Your task to perform on an android device: Open Google Maps and go to "Timeline" Image 0: 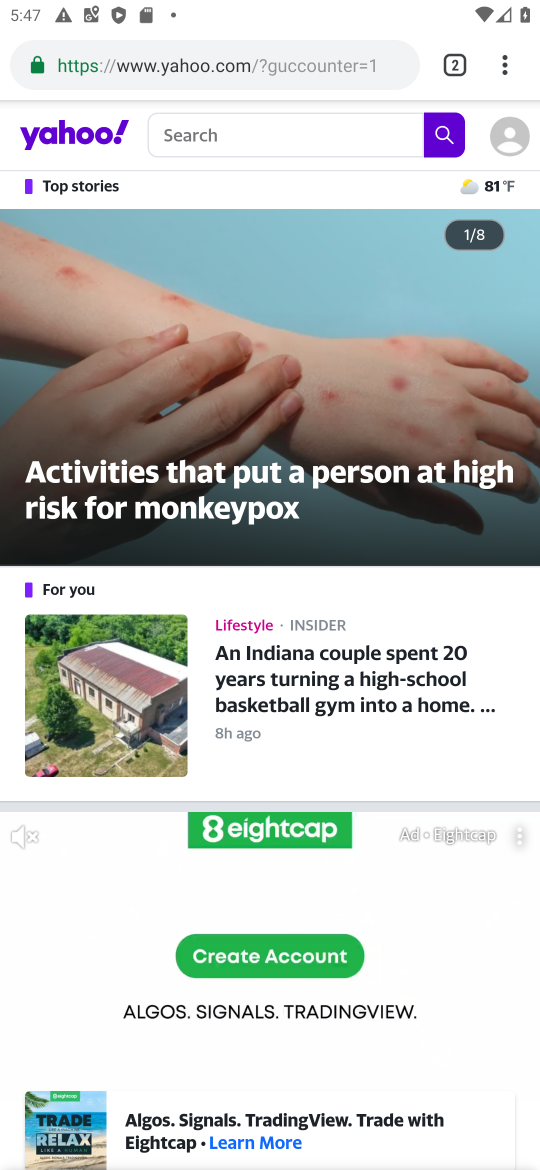
Step 0: press home button
Your task to perform on an android device: Open Google Maps and go to "Timeline" Image 1: 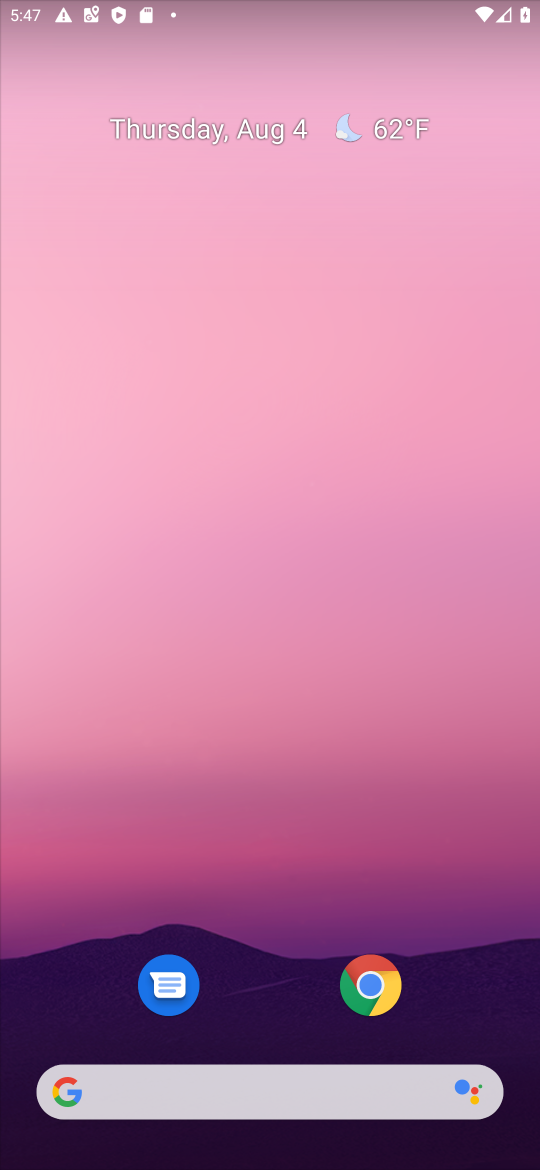
Step 1: drag from (305, 1080) to (53, 270)
Your task to perform on an android device: Open Google Maps and go to "Timeline" Image 2: 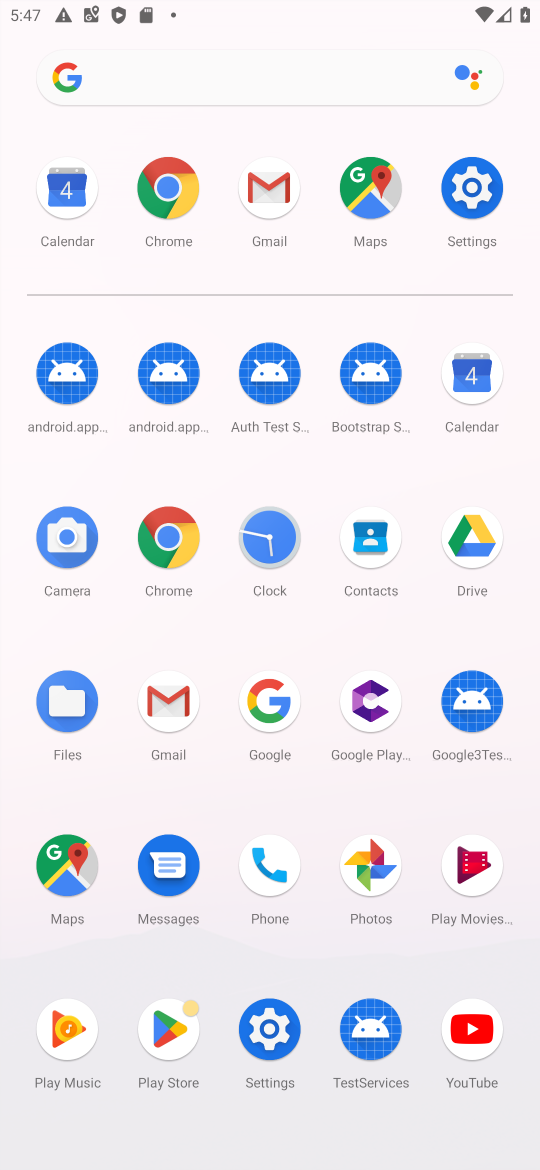
Step 2: click (77, 863)
Your task to perform on an android device: Open Google Maps and go to "Timeline" Image 3: 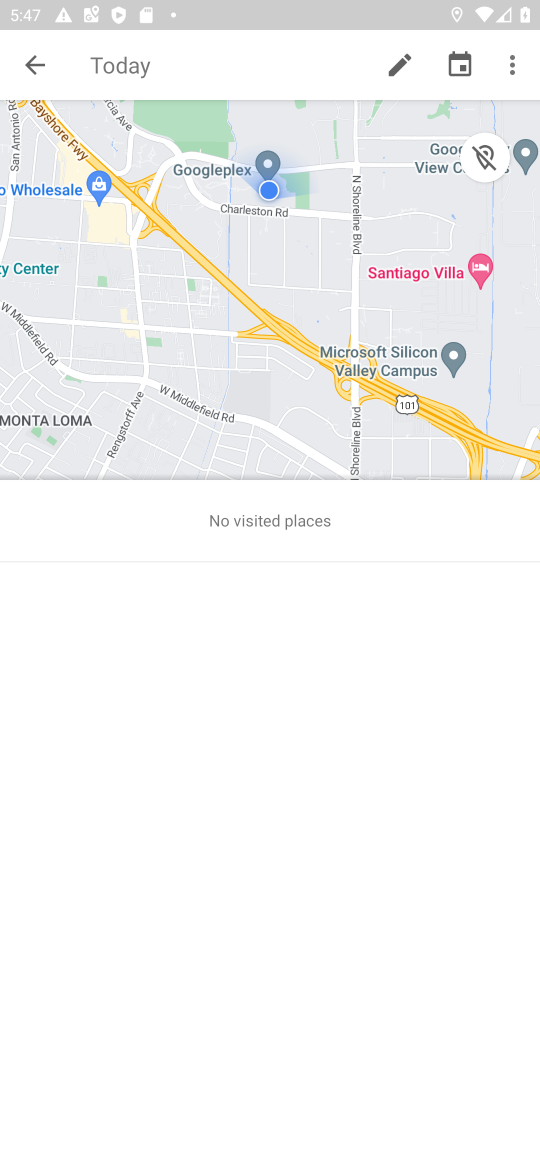
Step 3: click (35, 71)
Your task to perform on an android device: Open Google Maps and go to "Timeline" Image 4: 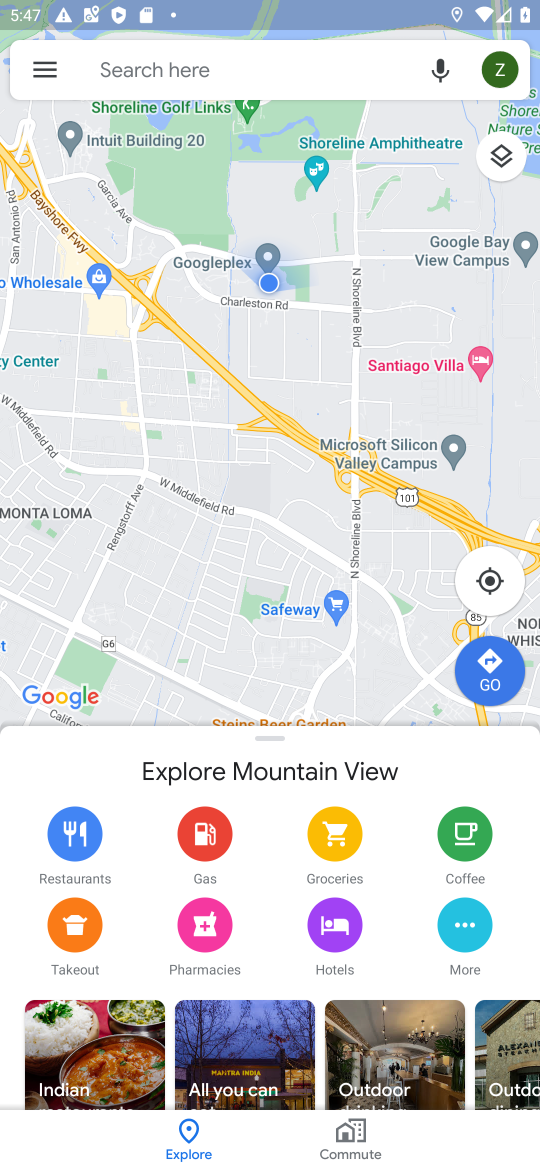
Step 4: click (46, 72)
Your task to perform on an android device: Open Google Maps and go to "Timeline" Image 5: 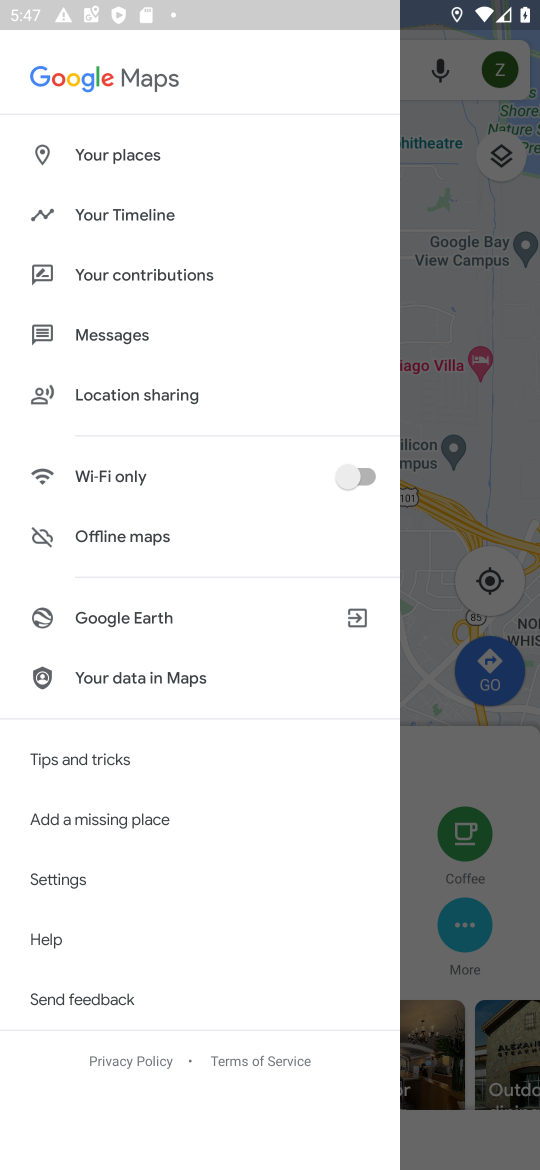
Step 5: click (159, 223)
Your task to perform on an android device: Open Google Maps and go to "Timeline" Image 6: 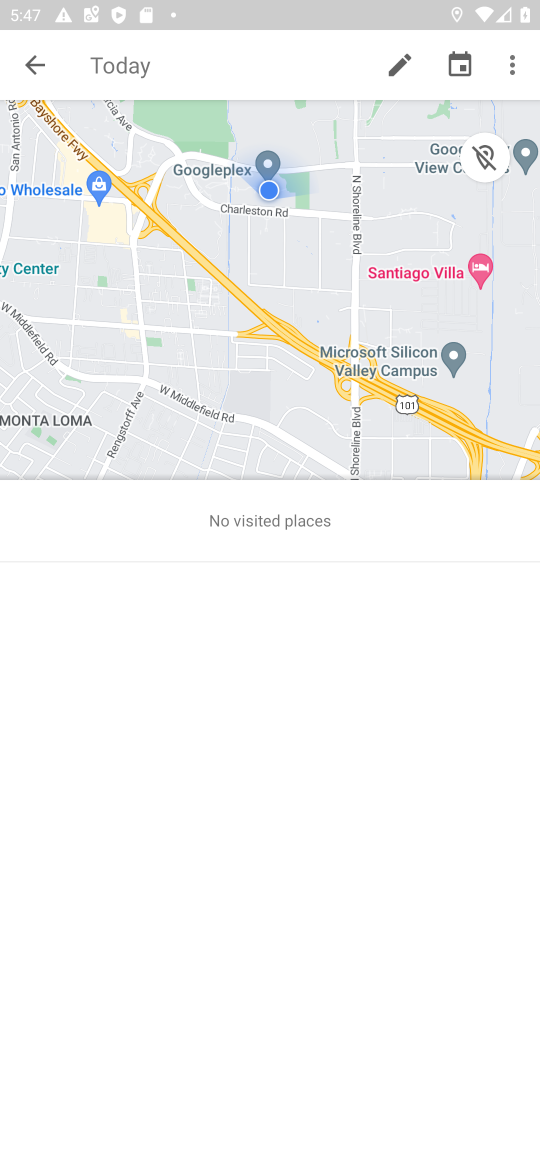
Step 6: task complete